Your task to perform on an android device: Open Yahoo.com Image 0: 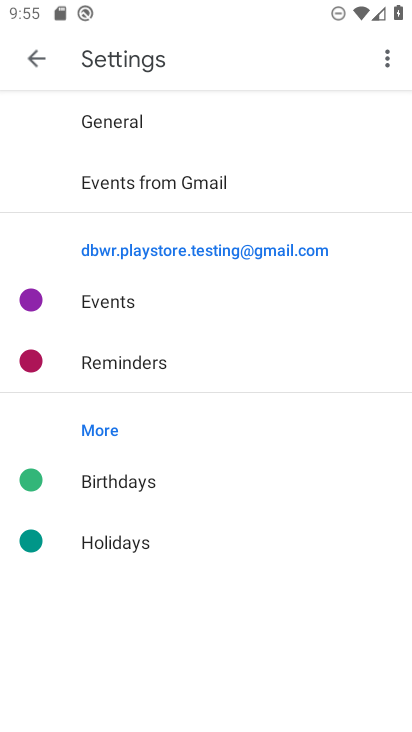
Step 0: press home button
Your task to perform on an android device: Open Yahoo.com Image 1: 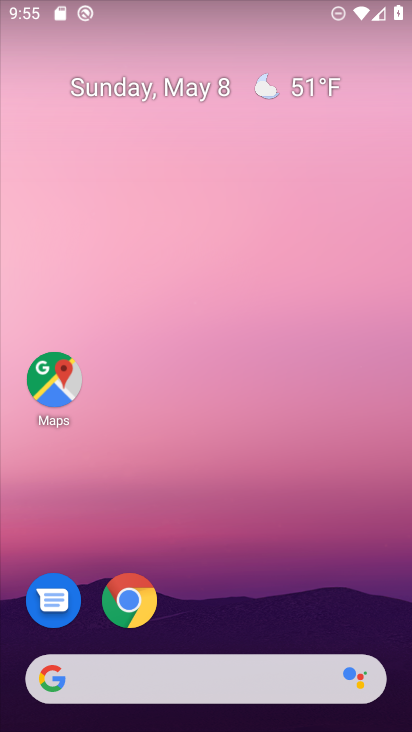
Step 1: click (129, 606)
Your task to perform on an android device: Open Yahoo.com Image 2: 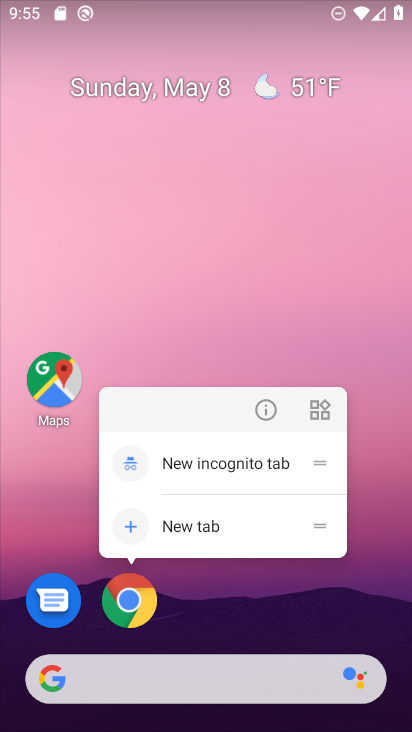
Step 2: click (123, 606)
Your task to perform on an android device: Open Yahoo.com Image 3: 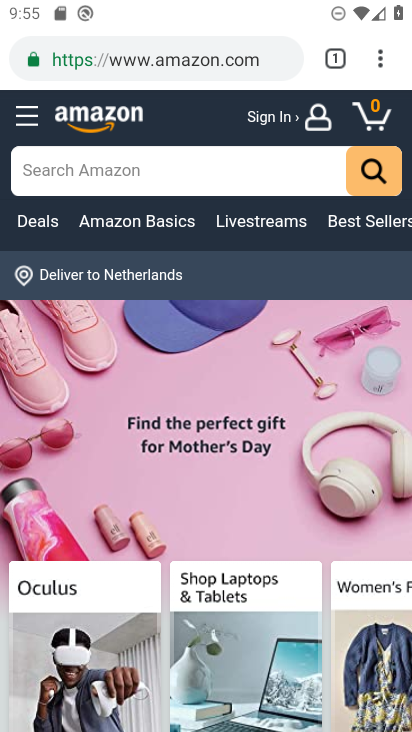
Step 3: click (97, 62)
Your task to perform on an android device: Open Yahoo.com Image 4: 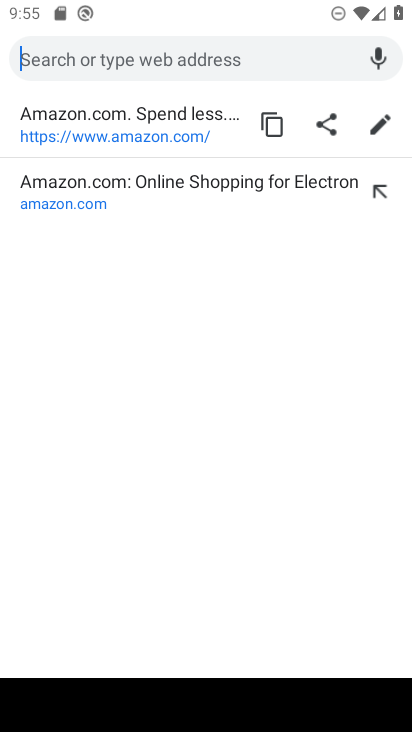
Step 4: type "yahoo.com"
Your task to perform on an android device: Open Yahoo.com Image 5: 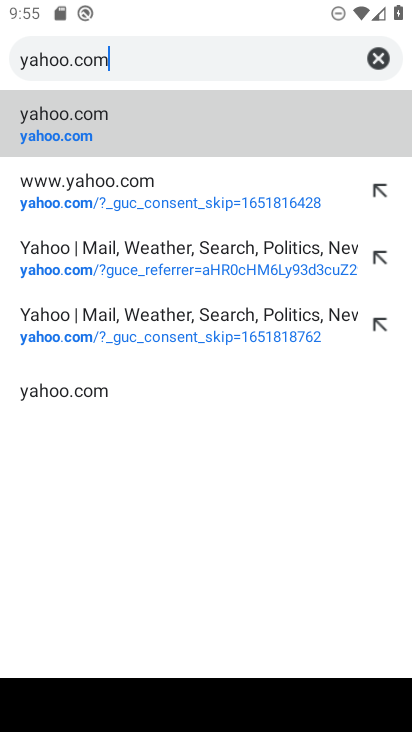
Step 5: click (82, 130)
Your task to perform on an android device: Open Yahoo.com Image 6: 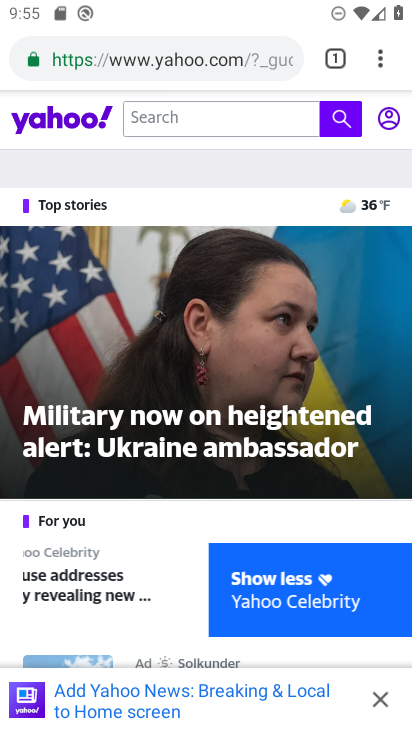
Step 6: task complete